Your task to perform on an android device: open app "Google Home" (install if not already installed) Image 0: 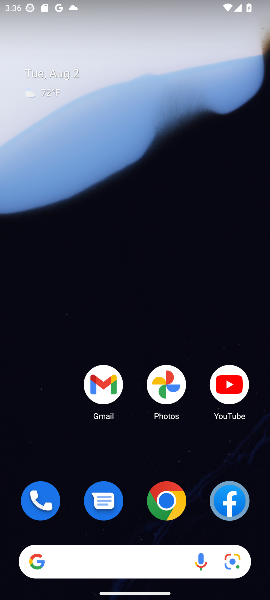
Step 0: drag from (146, 445) to (139, 4)
Your task to perform on an android device: open app "Google Home" (install if not already installed) Image 1: 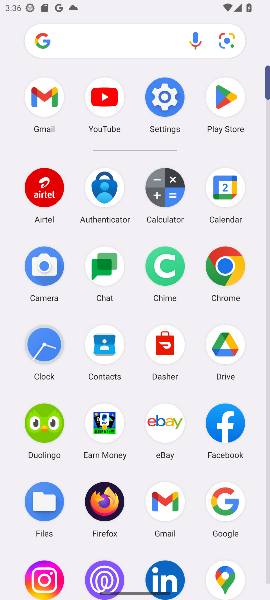
Step 1: click (221, 105)
Your task to perform on an android device: open app "Google Home" (install if not already installed) Image 2: 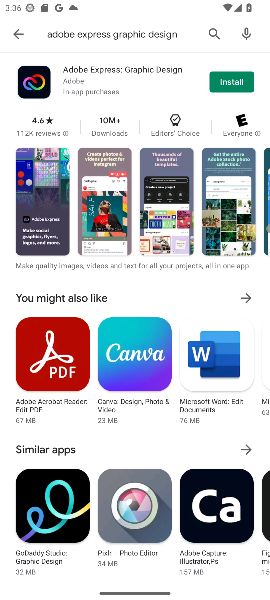
Step 2: click (214, 25)
Your task to perform on an android device: open app "Google Home" (install if not already installed) Image 3: 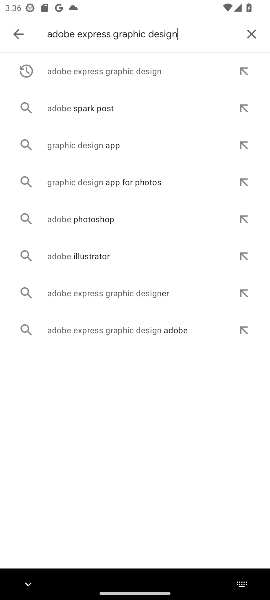
Step 3: click (246, 31)
Your task to perform on an android device: open app "Google Home" (install if not already installed) Image 4: 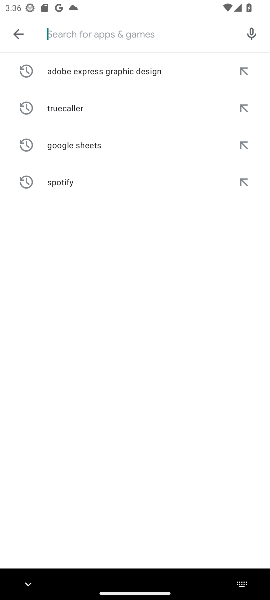
Step 4: type "Google Home"
Your task to perform on an android device: open app "Google Home" (install if not already installed) Image 5: 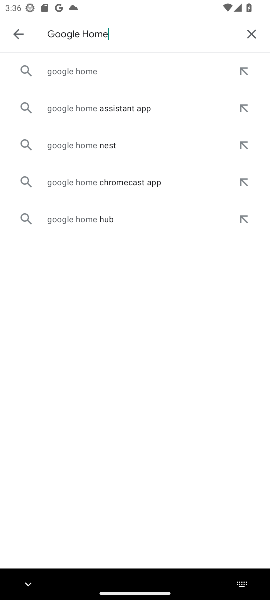
Step 5: click (77, 69)
Your task to perform on an android device: open app "Google Home" (install if not already installed) Image 6: 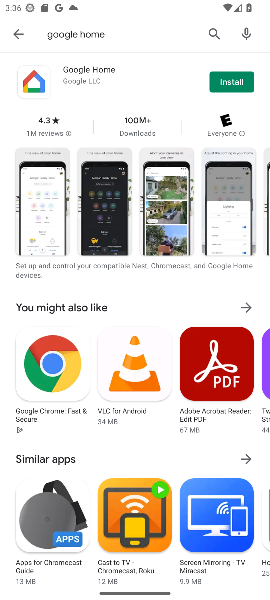
Step 6: click (225, 80)
Your task to perform on an android device: open app "Google Home" (install if not already installed) Image 7: 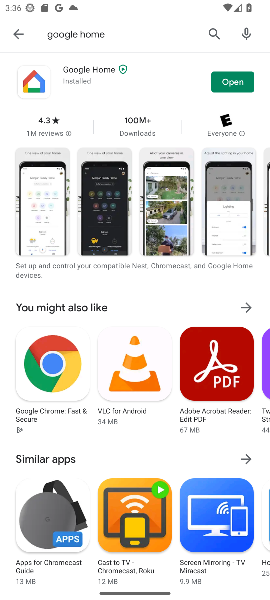
Step 7: click (225, 80)
Your task to perform on an android device: open app "Google Home" (install if not already installed) Image 8: 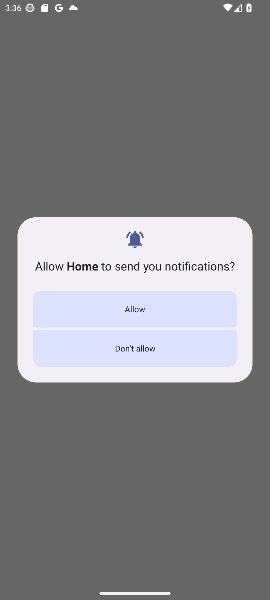
Step 8: task complete